Your task to perform on an android device: turn off wifi Image 0: 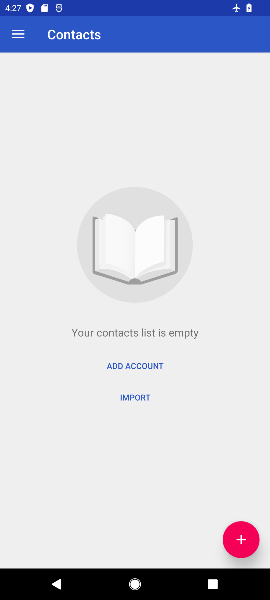
Step 0: press home button
Your task to perform on an android device: turn off wifi Image 1: 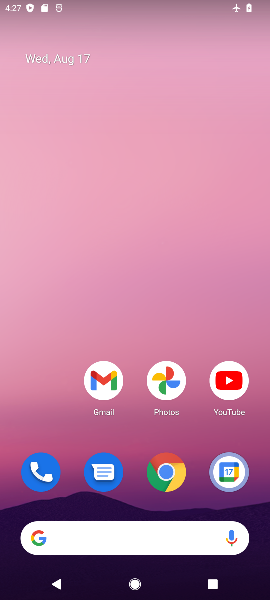
Step 1: drag from (141, 427) to (172, 6)
Your task to perform on an android device: turn off wifi Image 2: 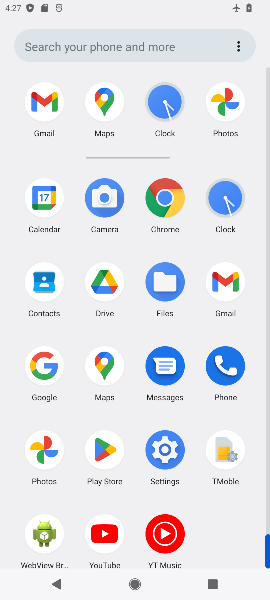
Step 2: click (149, 439)
Your task to perform on an android device: turn off wifi Image 3: 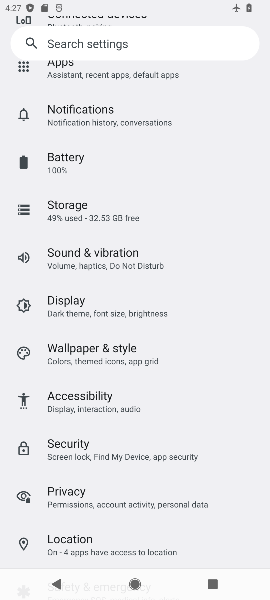
Step 3: drag from (152, 98) to (168, 543)
Your task to perform on an android device: turn off wifi Image 4: 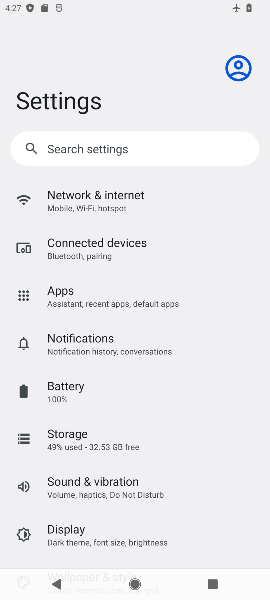
Step 4: click (102, 208)
Your task to perform on an android device: turn off wifi Image 5: 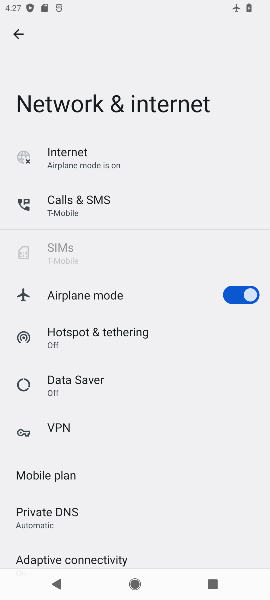
Step 5: click (98, 146)
Your task to perform on an android device: turn off wifi Image 6: 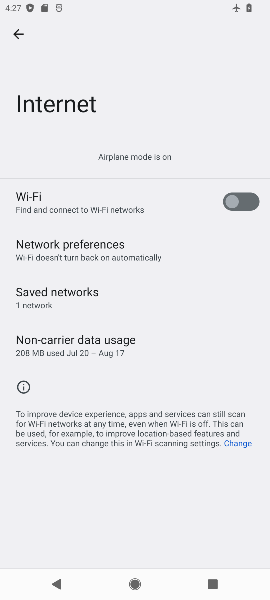
Step 6: task complete